Your task to perform on an android device: Open calendar and show me the fourth week of next month Image 0: 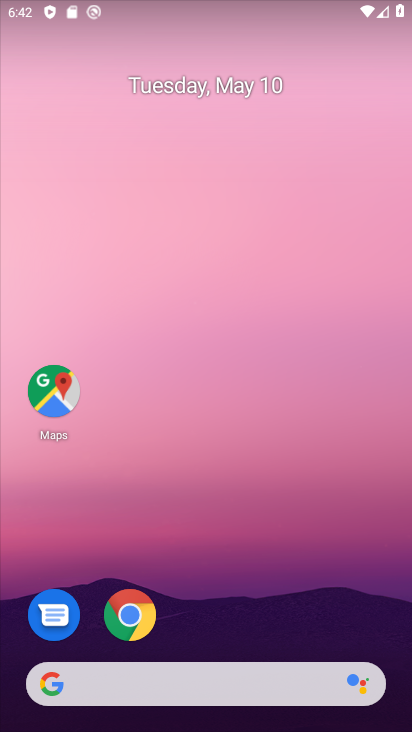
Step 0: drag from (176, 502) to (201, 62)
Your task to perform on an android device: Open calendar and show me the fourth week of next month Image 1: 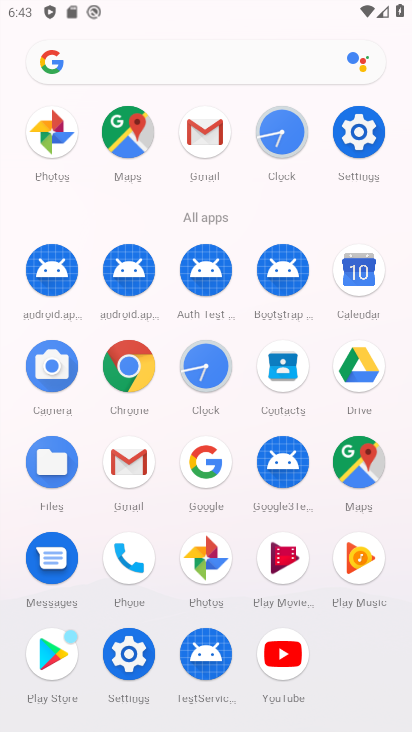
Step 1: click (356, 271)
Your task to perform on an android device: Open calendar and show me the fourth week of next month Image 2: 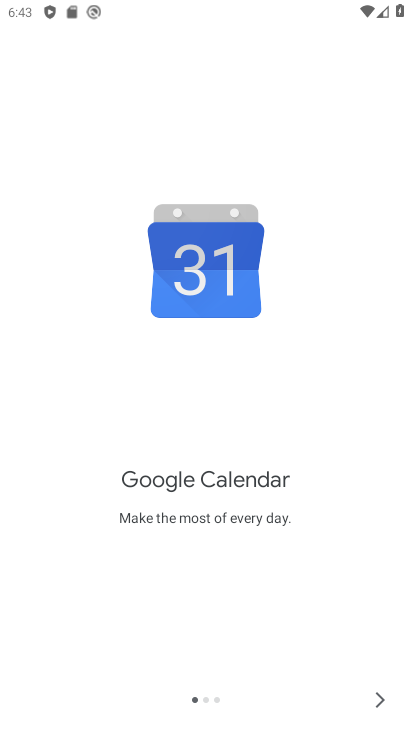
Step 2: click (377, 698)
Your task to perform on an android device: Open calendar and show me the fourth week of next month Image 3: 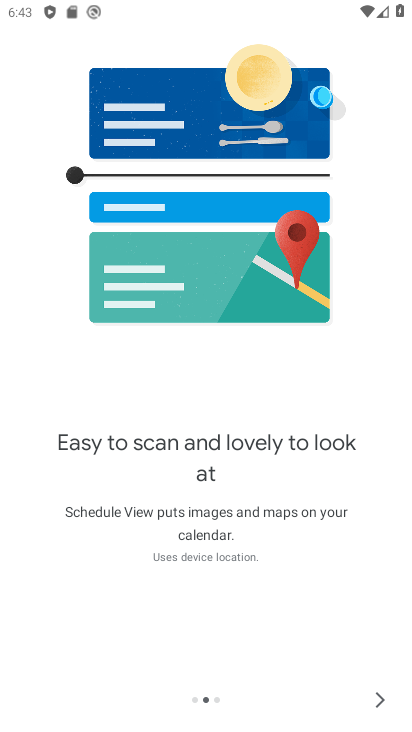
Step 3: click (377, 698)
Your task to perform on an android device: Open calendar and show me the fourth week of next month Image 4: 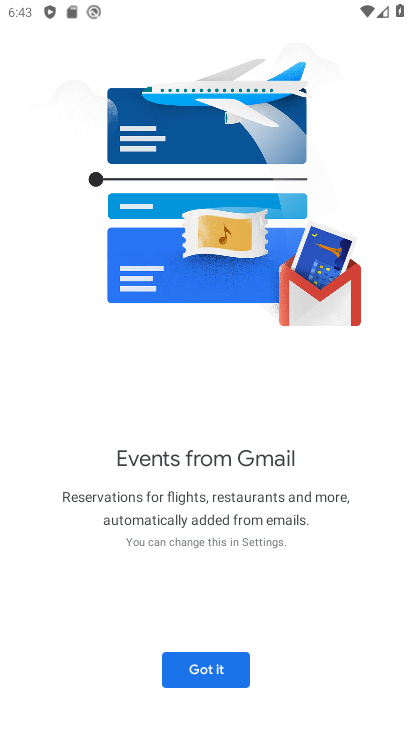
Step 4: click (221, 671)
Your task to perform on an android device: Open calendar and show me the fourth week of next month Image 5: 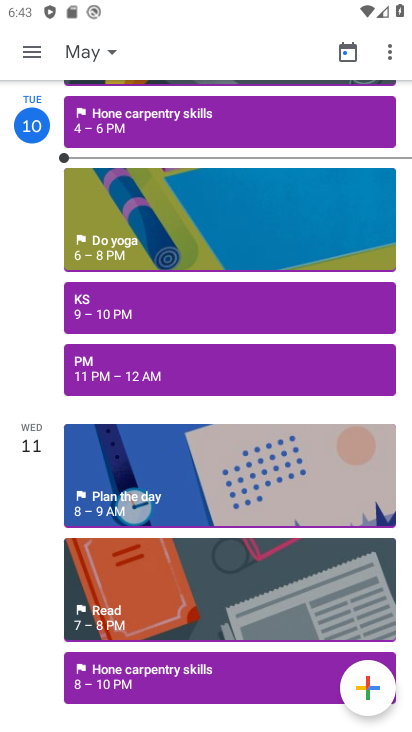
Step 5: click (30, 51)
Your task to perform on an android device: Open calendar and show me the fourth week of next month Image 6: 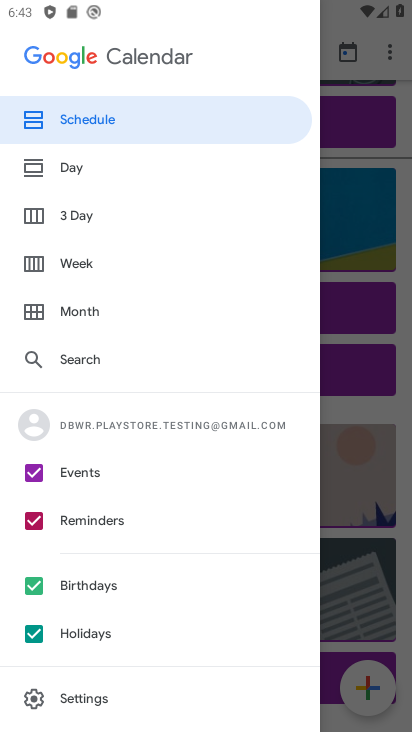
Step 6: click (69, 262)
Your task to perform on an android device: Open calendar and show me the fourth week of next month Image 7: 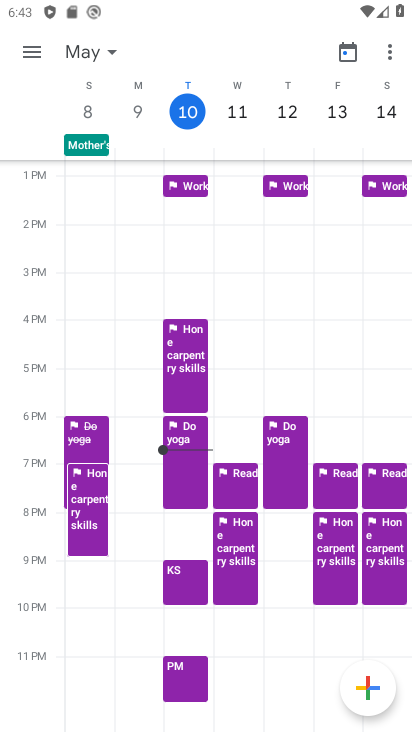
Step 7: click (112, 51)
Your task to perform on an android device: Open calendar and show me the fourth week of next month Image 8: 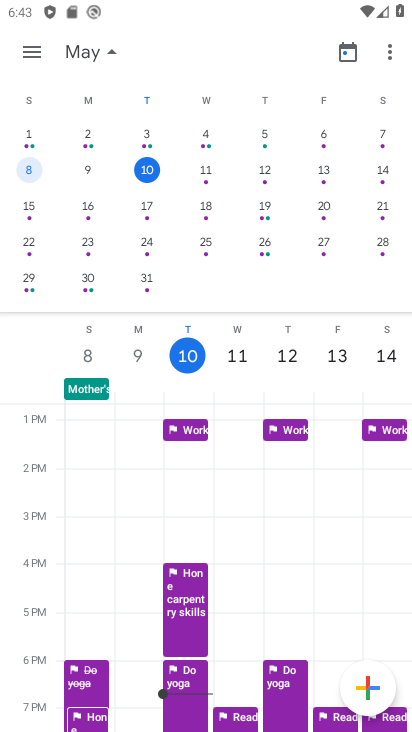
Step 8: drag from (352, 194) to (17, 189)
Your task to perform on an android device: Open calendar and show me the fourth week of next month Image 9: 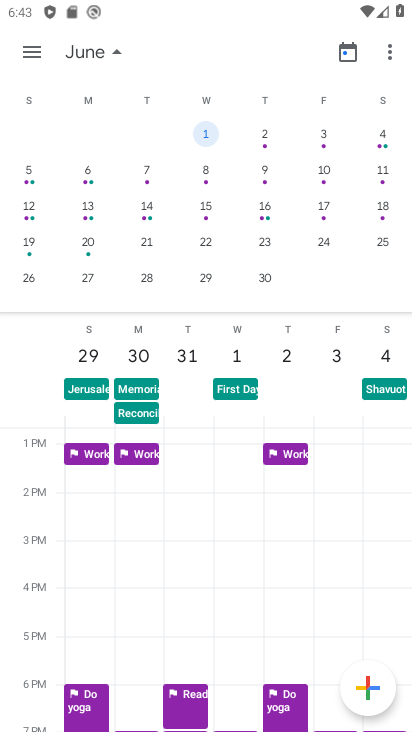
Step 9: click (202, 237)
Your task to perform on an android device: Open calendar and show me the fourth week of next month Image 10: 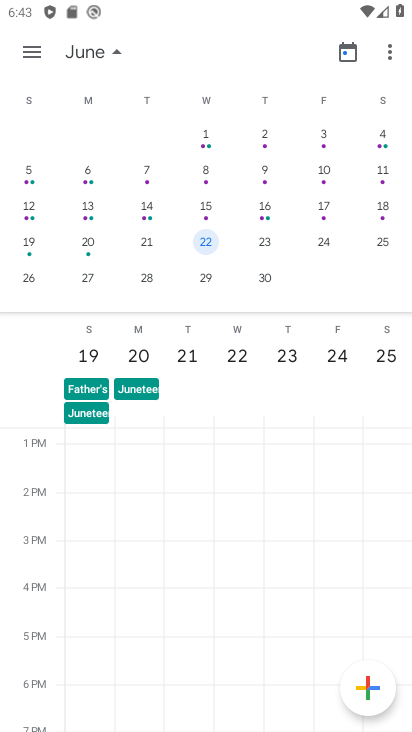
Step 10: task complete